Your task to perform on an android device: turn pop-ups on in chrome Image 0: 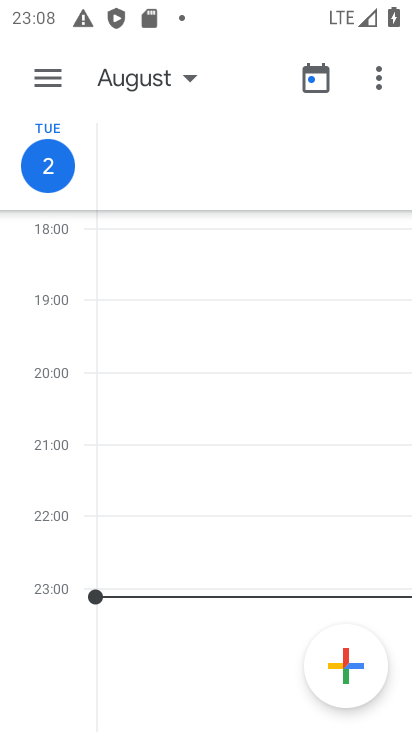
Step 0: drag from (224, 638) to (169, 150)
Your task to perform on an android device: turn pop-ups on in chrome Image 1: 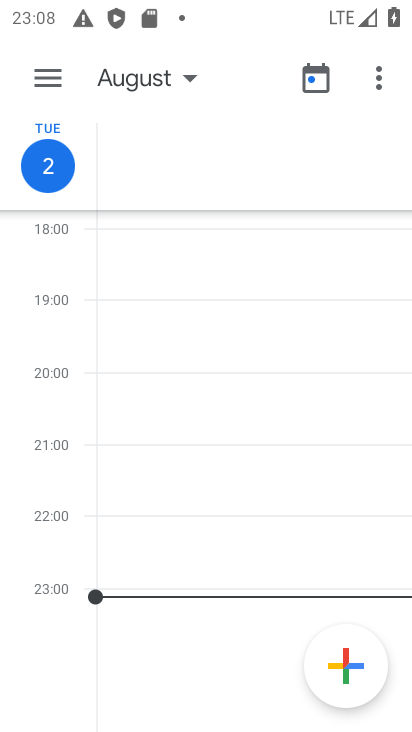
Step 1: press back button
Your task to perform on an android device: turn pop-ups on in chrome Image 2: 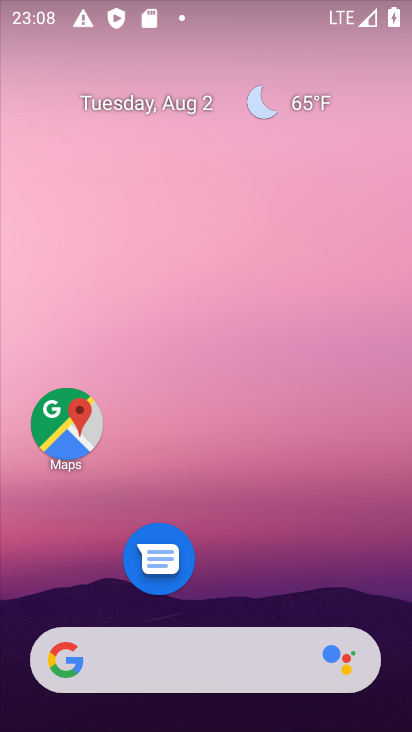
Step 2: click (220, 344)
Your task to perform on an android device: turn pop-ups on in chrome Image 3: 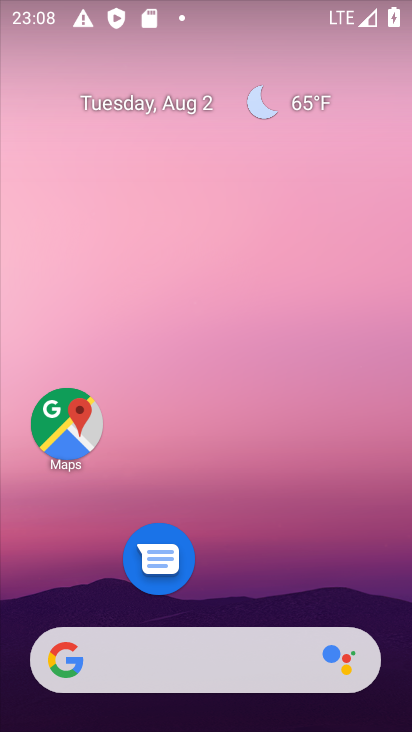
Step 3: drag from (202, 536) to (176, 331)
Your task to perform on an android device: turn pop-ups on in chrome Image 4: 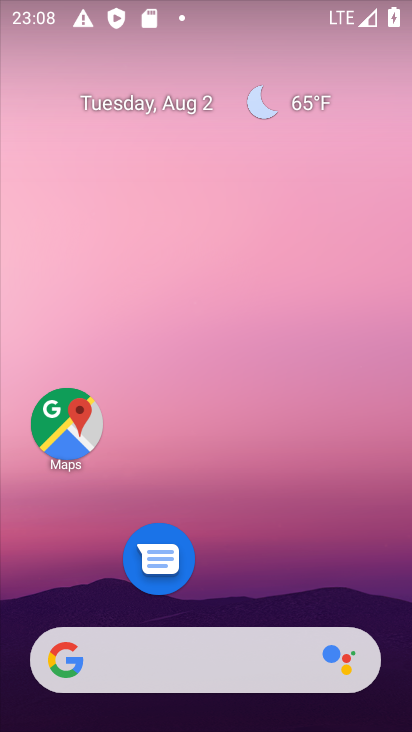
Step 4: drag from (244, 578) to (201, 236)
Your task to perform on an android device: turn pop-ups on in chrome Image 5: 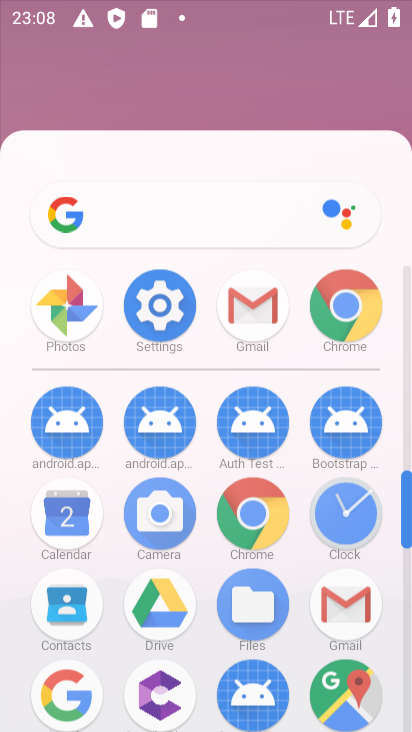
Step 5: drag from (247, 586) to (182, 167)
Your task to perform on an android device: turn pop-ups on in chrome Image 6: 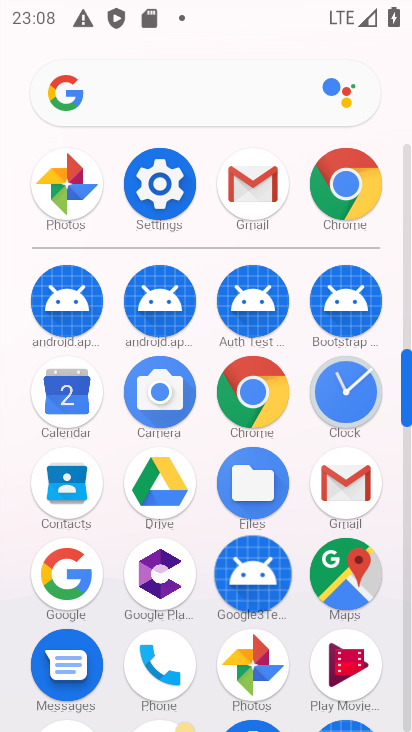
Step 6: click (172, 84)
Your task to perform on an android device: turn pop-ups on in chrome Image 7: 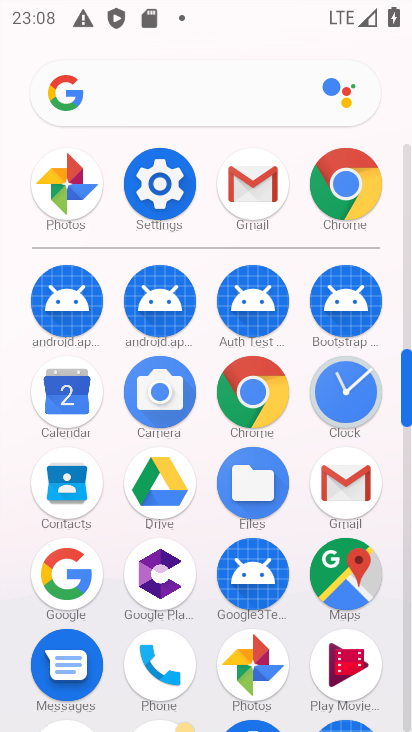
Step 7: drag from (197, 144) to (234, 102)
Your task to perform on an android device: turn pop-ups on in chrome Image 8: 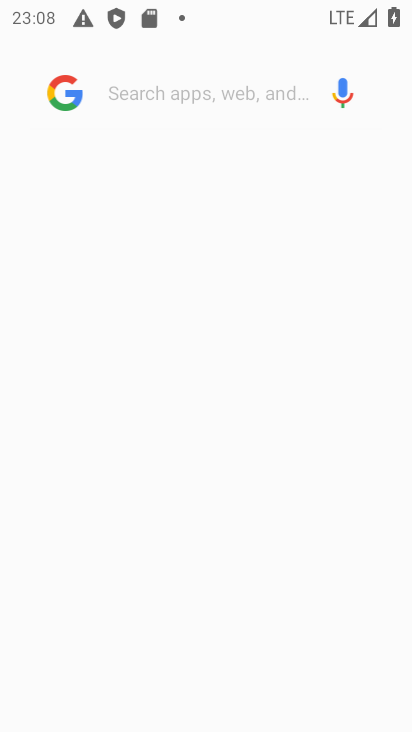
Step 8: drag from (258, 460) to (225, 178)
Your task to perform on an android device: turn pop-ups on in chrome Image 9: 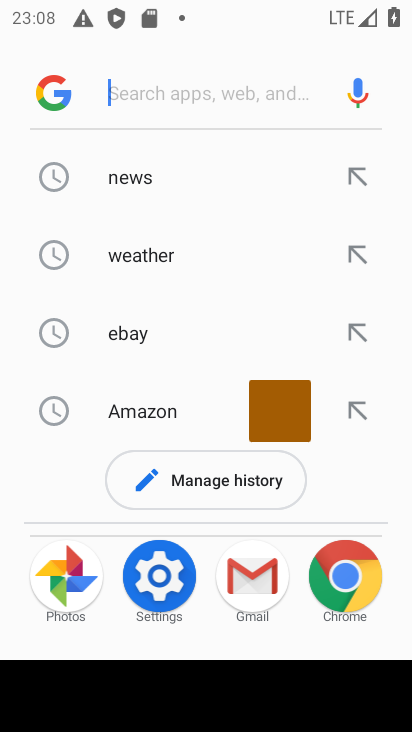
Step 9: drag from (193, 92) to (144, 196)
Your task to perform on an android device: turn pop-ups on in chrome Image 10: 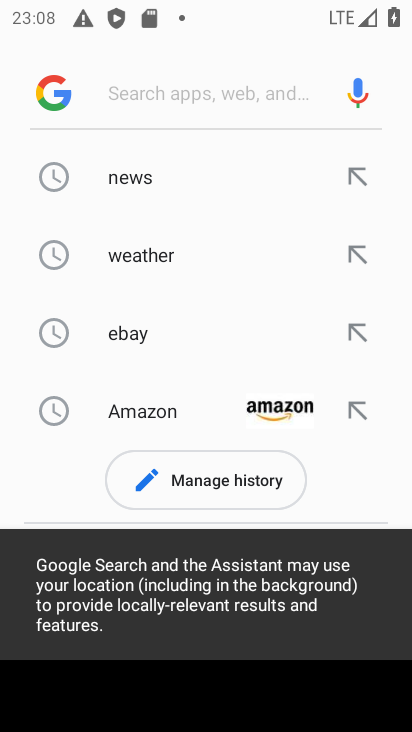
Step 10: drag from (198, 445) to (196, 228)
Your task to perform on an android device: turn pop-ups on in chrome Image 11: 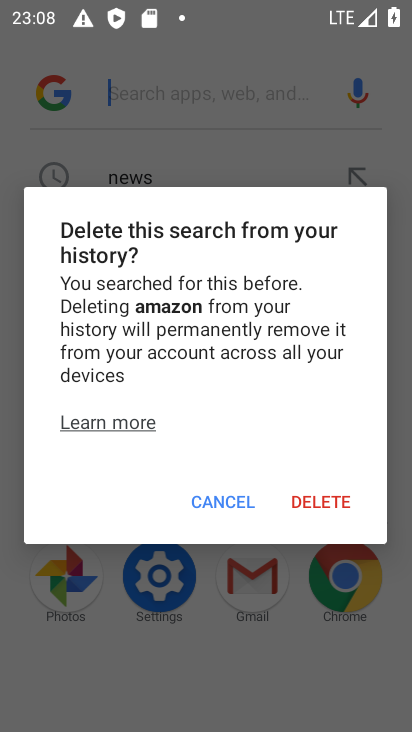
Step 11: click (219, 500)
Your task to perform on an android device: turn pop-ups on in chrome Image 12: 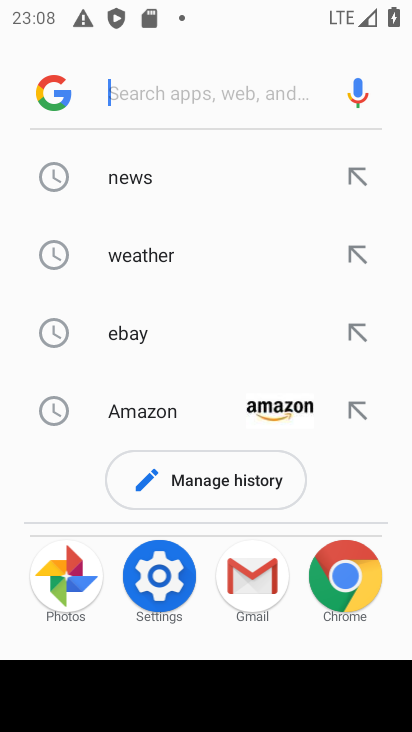
Step 12: click (214, 505)
Your task to perform on an android device: turn pop-ups on in chrome Image 13: 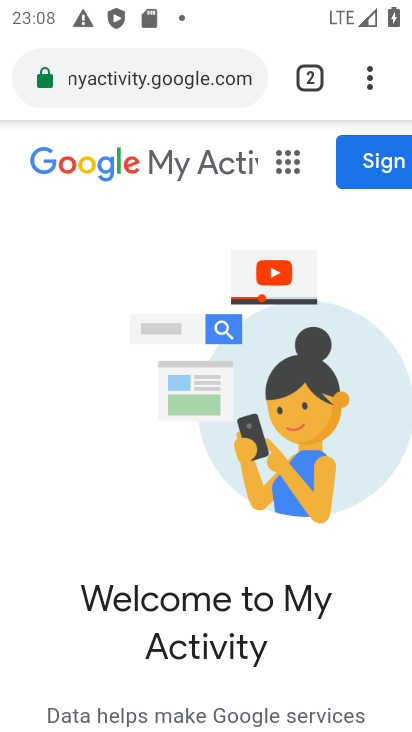
Step 13: click (343, 574)
Your task to perform on an android device: turn pop-ups on in chrome Image 14: 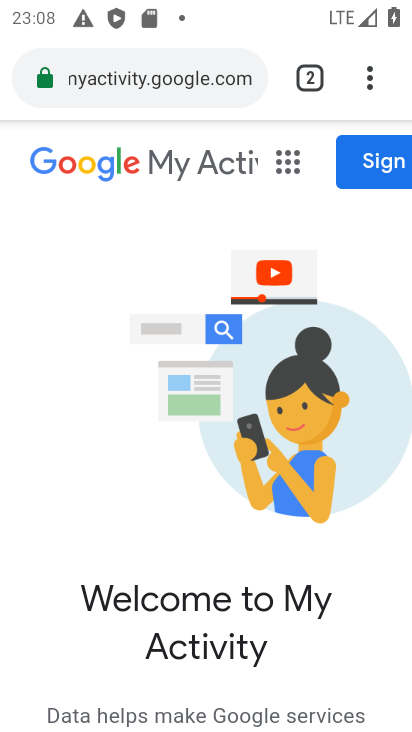
Step 14: click (339, 569)
Your task to perform on an android device: turn pop-ups on in chrome Image 15: 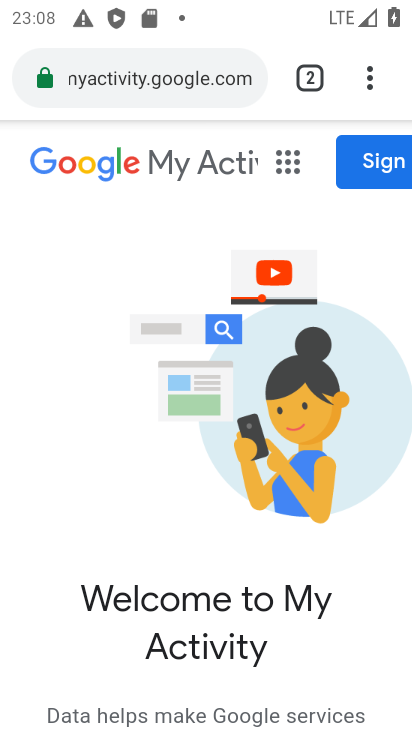
Step 15: click (344, 567)
Your task to perform on an android device: turn pop-ups on in chrome Image 16: 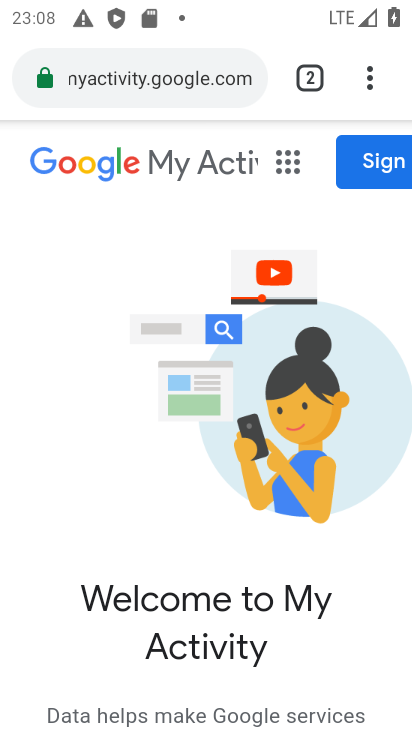
Step 16: drag from (372, 81) to (274, 420)
Your task to perform on an android device: turn pop-ups on in chrome Image 17: 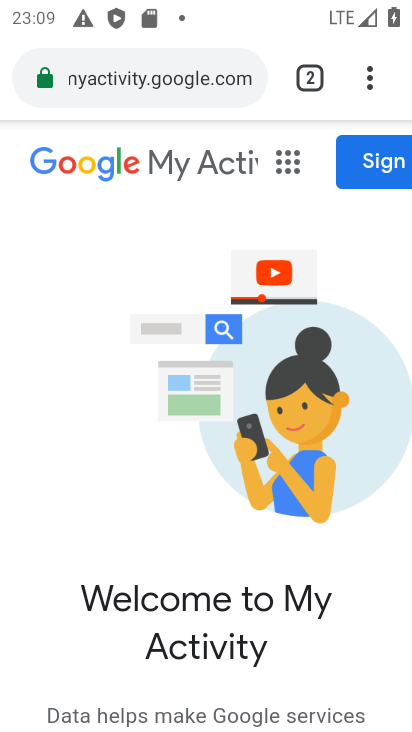
Step 17: click (368, 110)
Your task to perform on an android device: turn pop-ups on in chrome Image 18: 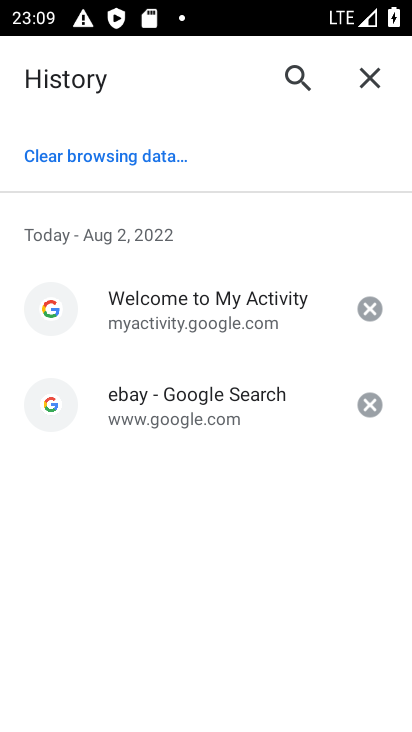
Step 18: click (366, 85)
Your task to perform on an android device: turn pop-ups on in chrome Image 19: 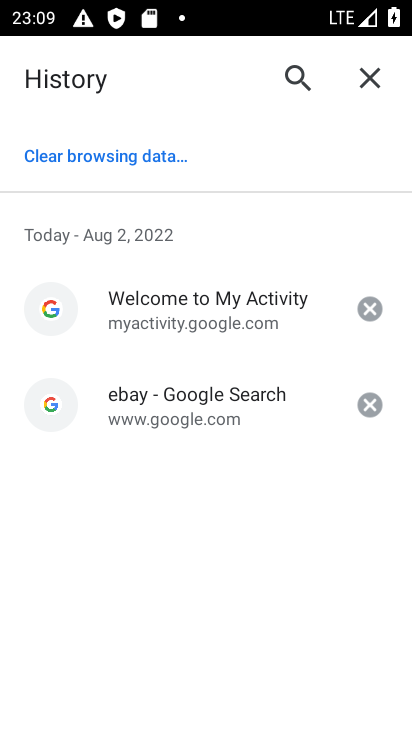
Step 19: click (375, 72)
Your task to perform on an android device: turn pop-ups on in chrome Image 20: 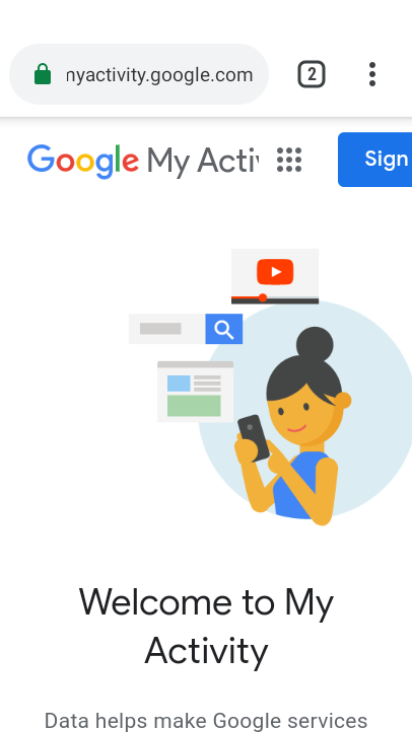
Step 20: click (369, 84)
Your task to perform on an android device: turn pop-ups on in chrome Image 21: 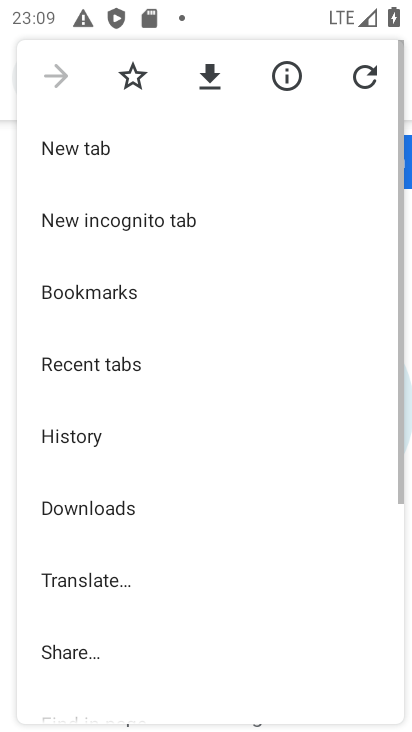
Step 21: click (372, 76)
Your task to perform on an android device: turn pop-ups on in chrome Image 22: 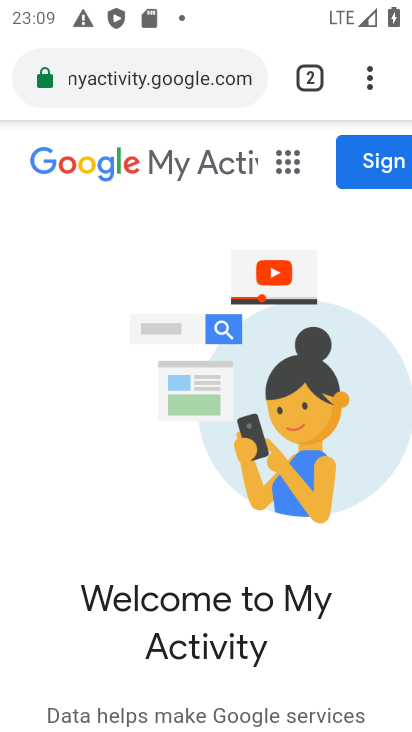
Step 22: click (46, 232)
Your task to perform on an android device: turn pop-ups on in chrome Image 23: 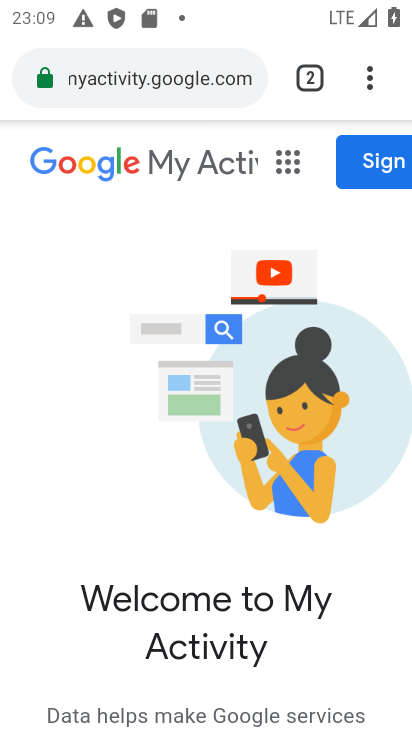
Step 23: click (372, 78)
Your task to perform on an android device: turn pop-ups on in chrome Image 24: 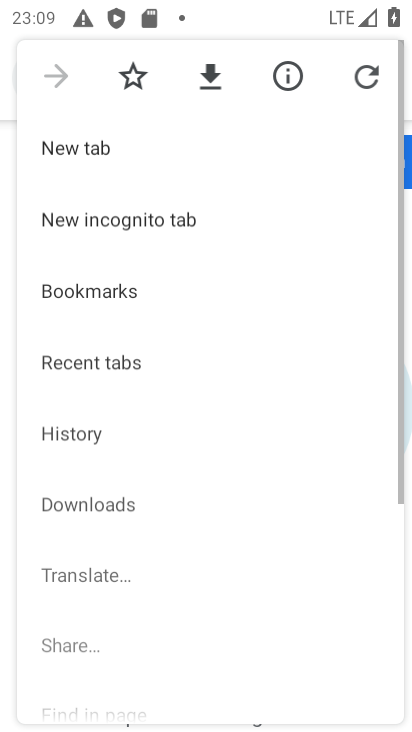
Step 24: drag from (366, 94) to (331, 336)
Your task to perform on an android device: turn pop-ups on in chrome Image 25: 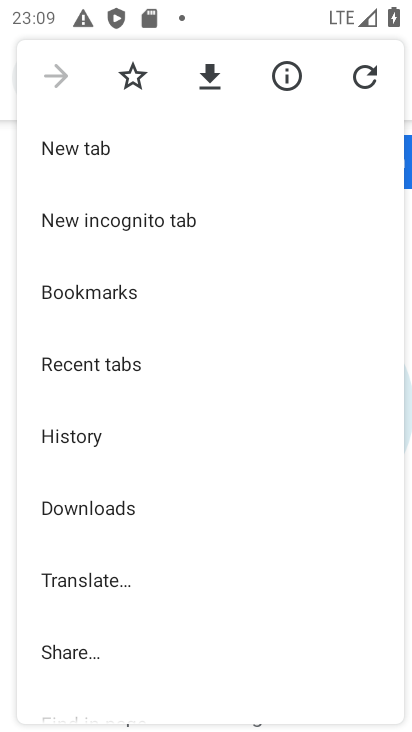
Step 25: drag from (90, 598) to (55, 240)
Your task to perform on an android device: turn pop-ups on in chrome Image 26: 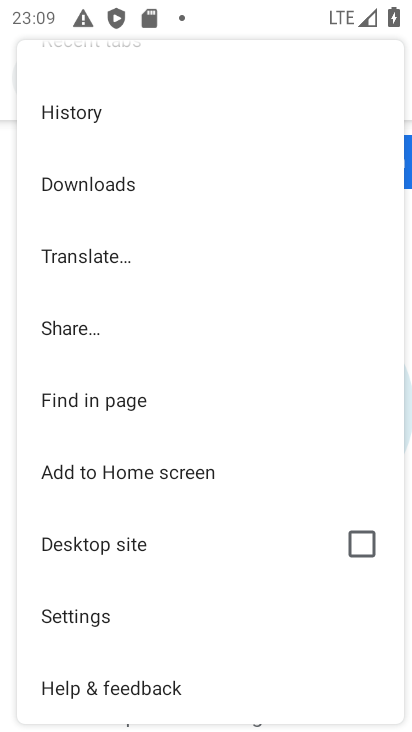
Step 26: click (46, 617)
Your task to perform on an android device: turn pop-ups on in chrome Image 27: 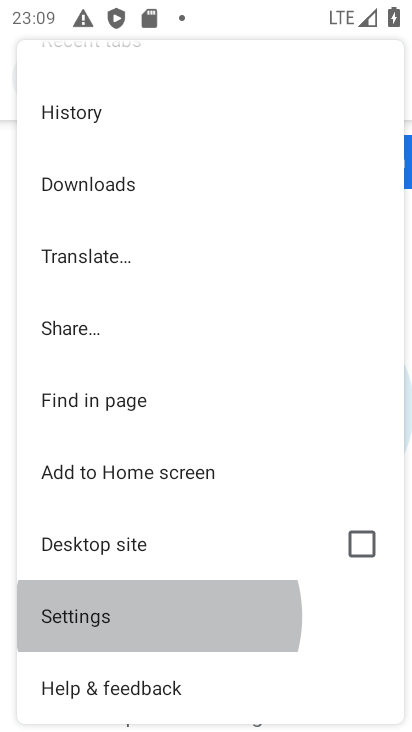
Step 27: click (53, 617)
Your task to perform on an android device: turn pop-ups on in chrome Image 28: 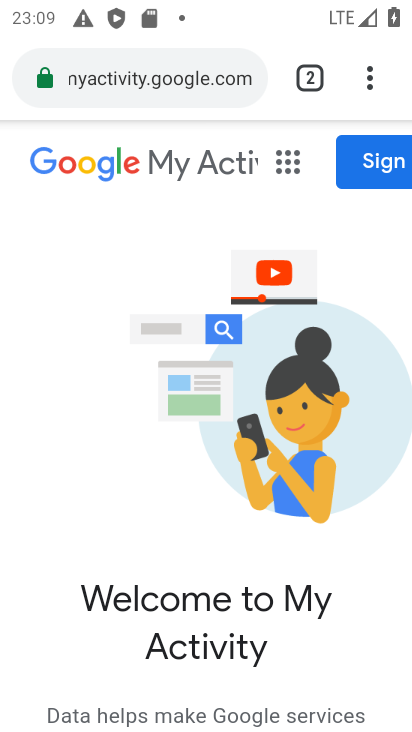
Step 28: click (55, 617)
Your task to perform on an android device: turn pop-ups on in chrome Image 29: 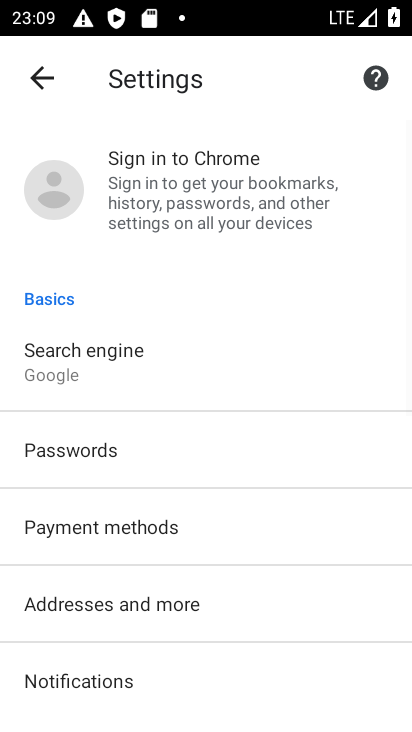
Step 29: drag from (91, 594) to (64, 297)
Your task to perform on an android device: turn pop-ups on in chrome Image 30: 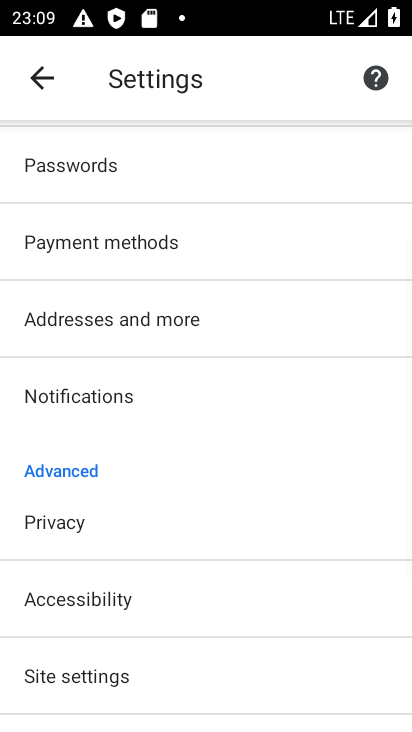
Step 30: drag from (150, 564) to (93, 178)
Your task to perform on an android device: turn pop-ups on in chrome Image 31: 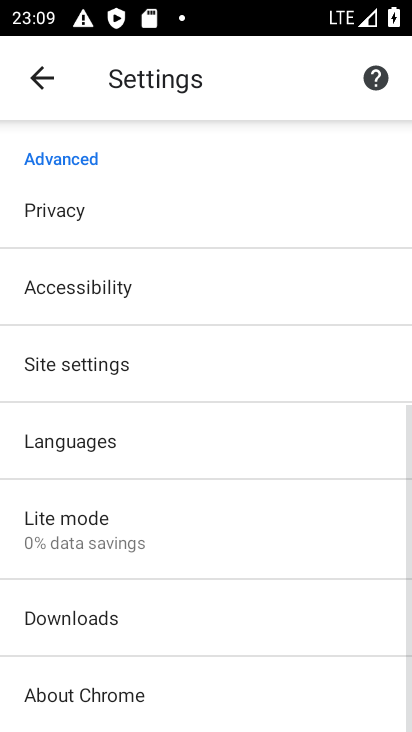
Step 31: click (55, 361)
Your task to perform on an android device: turn pop-ups on in chrome Image 32: 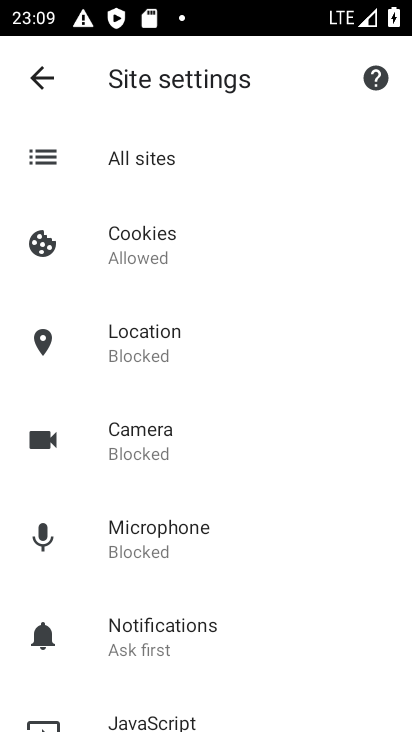
Step 32: drag from (144, 330) to (144, 156)
Your task to perform on an android device: turn pop-ups on in chrome Image 33: 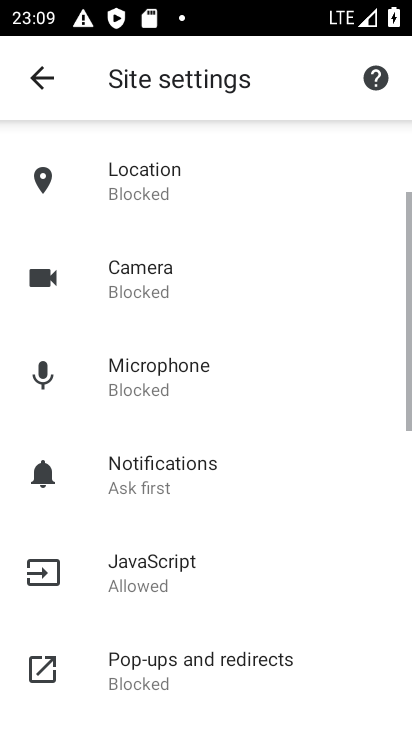
Step 33: drag from (214, 425) to (185, 187)
Your task to perform on an android device: turn pop-ups on in chrome Image 34: 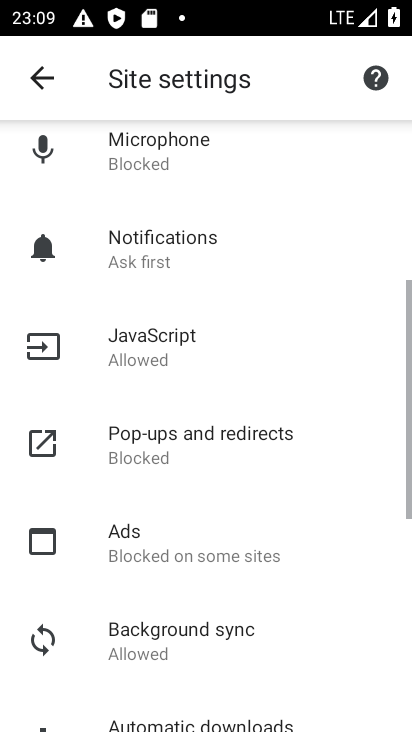
Step 34: click (126, 449)
Your task to perform on an android device: turn pop-ups on in chrome Image 35: 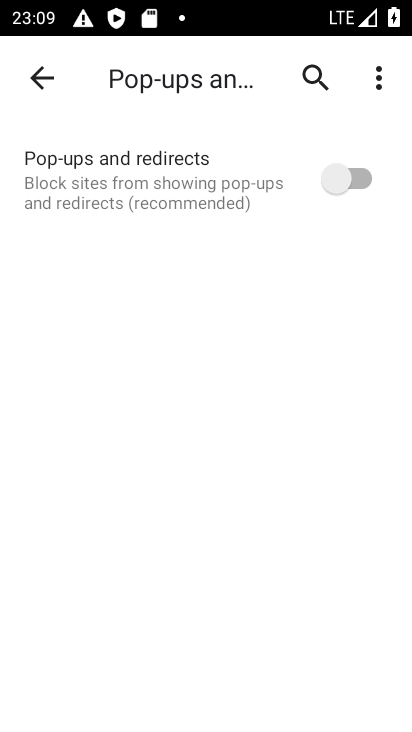
Step 35: click (339, 177)
Your task to perform on an android device: turn pop-ups on in chrome Image 36: 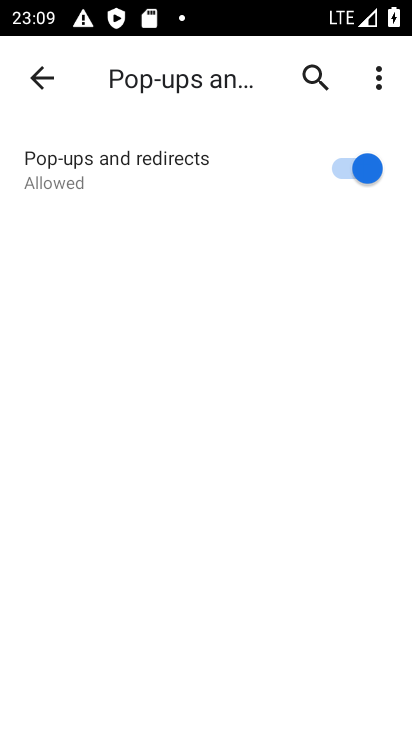
Step 36: task complete